Your task to perform on an android device: Open Youtube and go to the subscriptions tab Image 0: 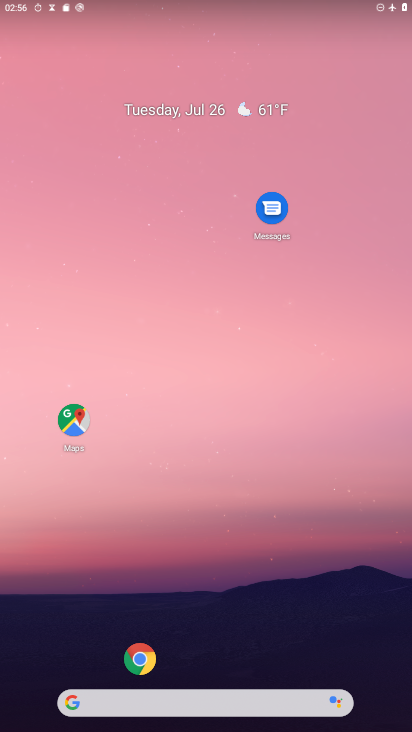
Step 0: click (106, 696)
Your task to perform on an android device: Open Youtube and go to the subscriptions tab Image 1: 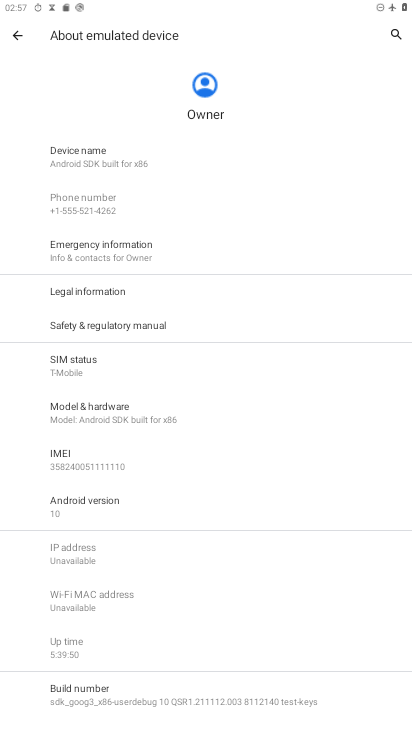
Step 1: press home button
Your task to perform on an android device: Open Youtube and go to the subscriptions tab Image 2: 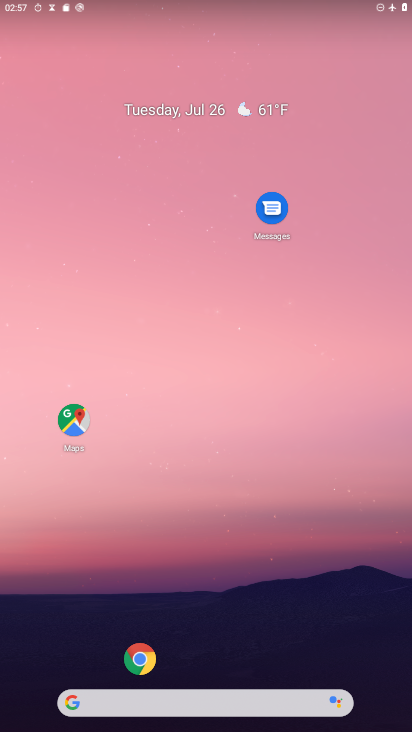
Step 2: drag from (25, 692) to (127, 245)
Your task to perform on an android device: Open Youtube and go to the subscriptions tab Image 3: 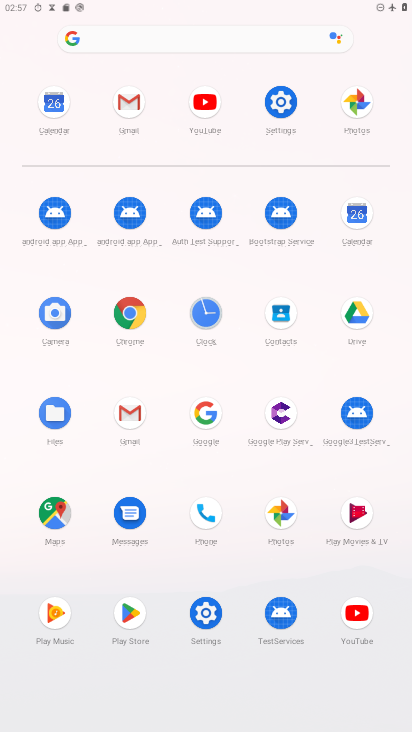
Step 3: click (374, 606)
Your task to perform on an android device: Open Youtube and go to the subscriptions tab Image 4: 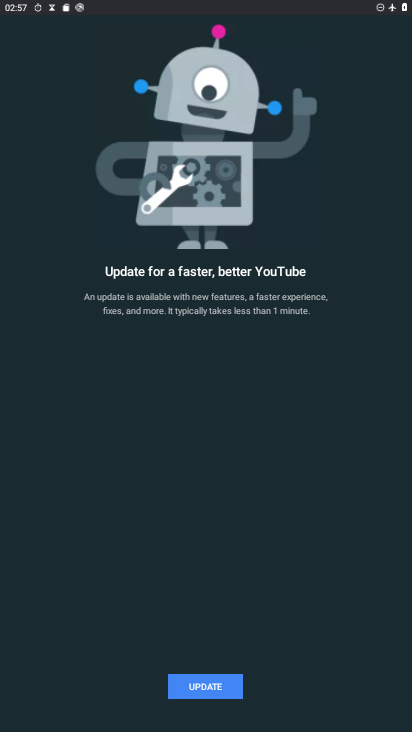
Step 4: click (176, 683)
Your task to perform on an android device: Open Youtube and go to the subscriptions tab Image 5: 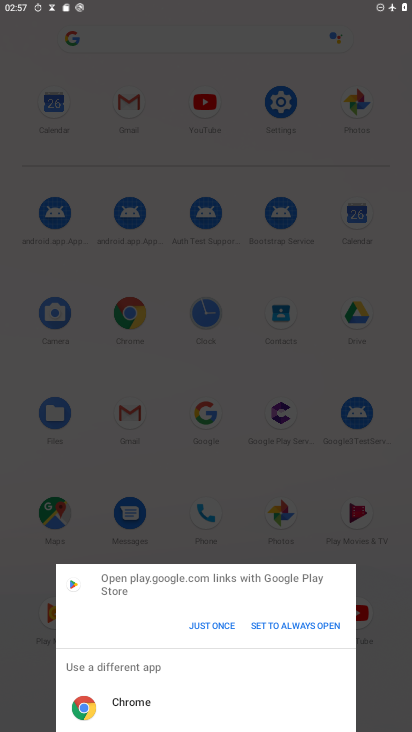
Step 5: click (227, 620)
Your task to perform on an android device: Open Youtube and go to the subscriptions tab Image 6: 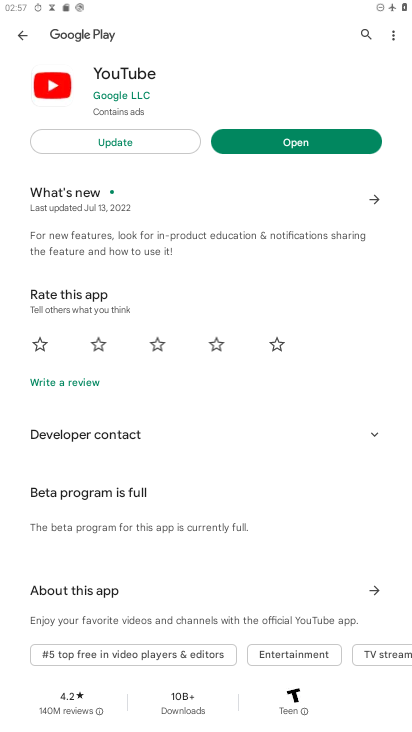
Step 6: task complete